Your task to perform on an android device: see tabs open on other devices in the chrome app Image 0: 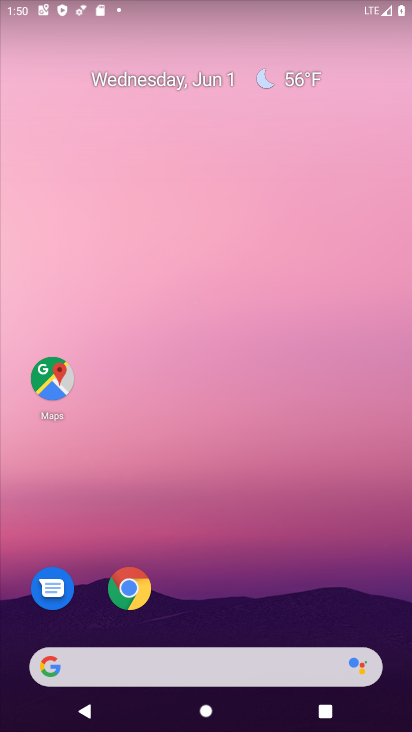
Step 0: click (141, 591)
Your task to perform on an android device: see tabs open on other devices in the chrome app Image 1: 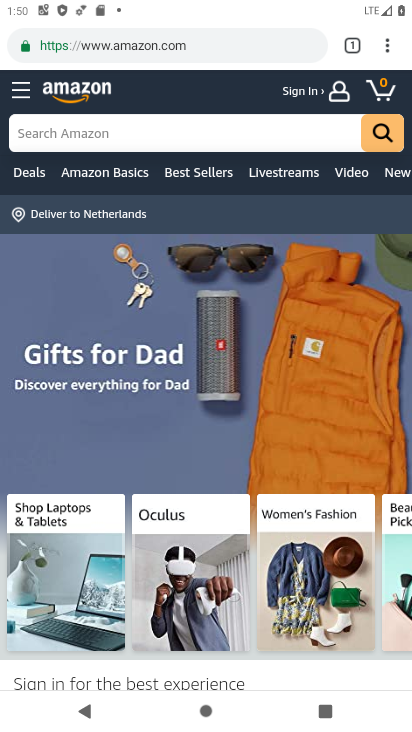
Step 1: click (387, 55)
Your task to perform on an android device: see tabs open on other devices in the chrome app Image 2: 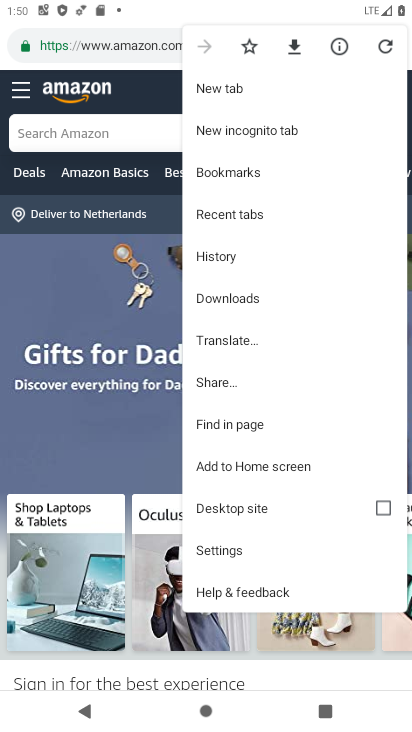
Step 2: click (256, 206)
Your task to perform on an android device: see tabs open on other devices in the chrome app Image 3: 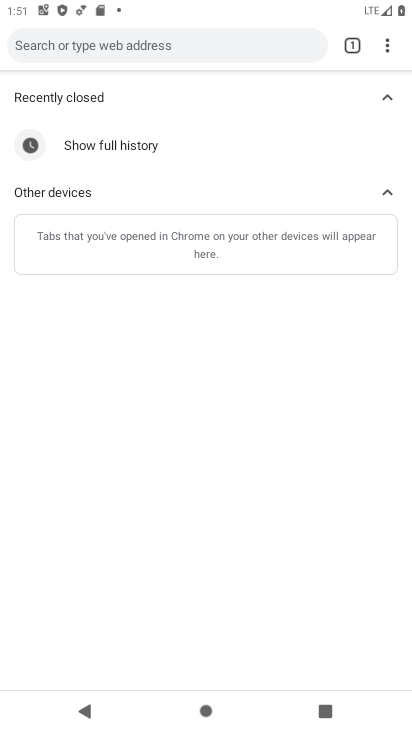
Step 3: task complete